Your task to perform on an android device: all mails in gmail Image 0: 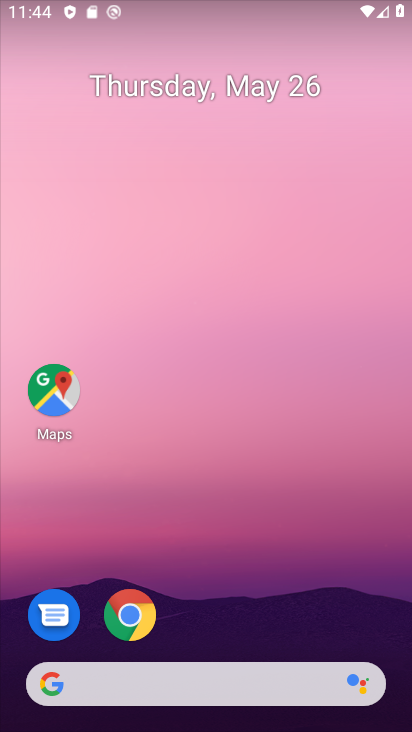
Step 0: drag from (185, 650) to (271, 182)
Your task to perform on an android device: all mails in gmail Image 1: 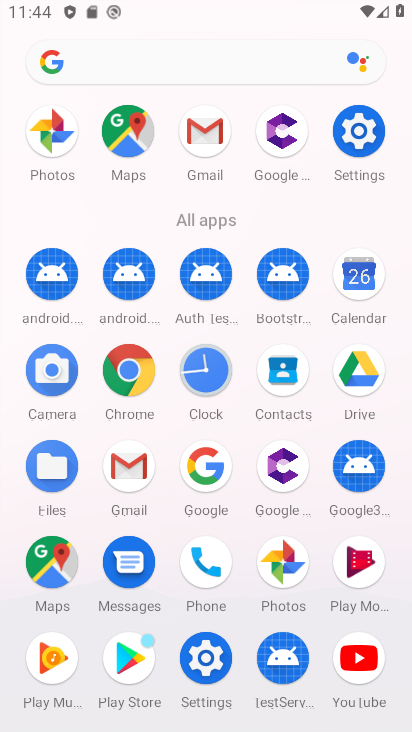
Step 1: click (123, 477)
Your task to perform on an android device: all mails in gmail Image 2: 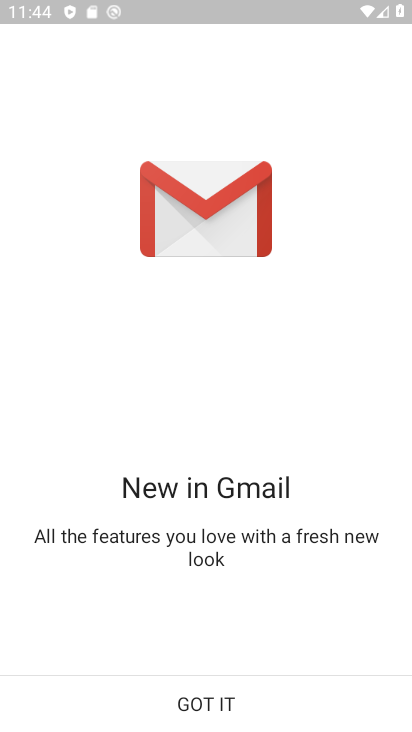
Step 2: click (237, 698)
Your task to perform on an android device: all mails in gmail Image 3: 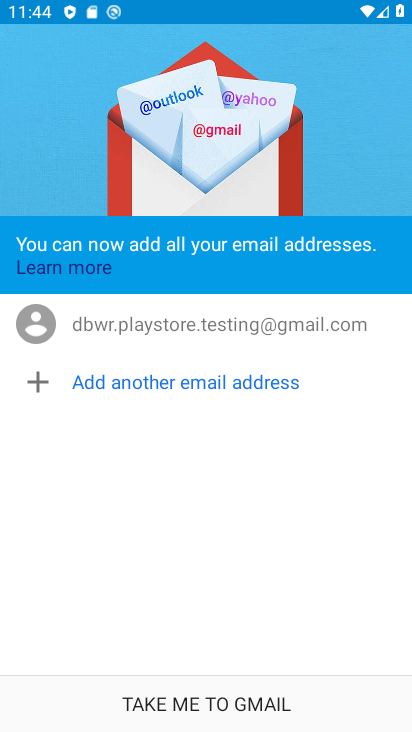
Step 3: click (237, 698)
Your task to perform on an android device: all mails in gmail Image 4: 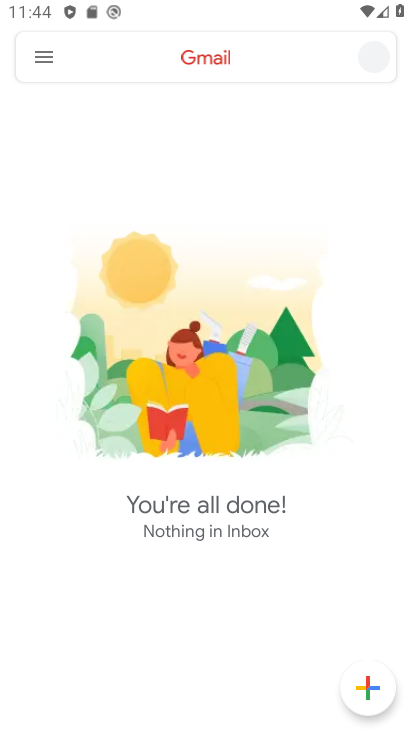
Step 4: click (31, 60)
Your task to perform on an android device: all mails in gmail Image 5: 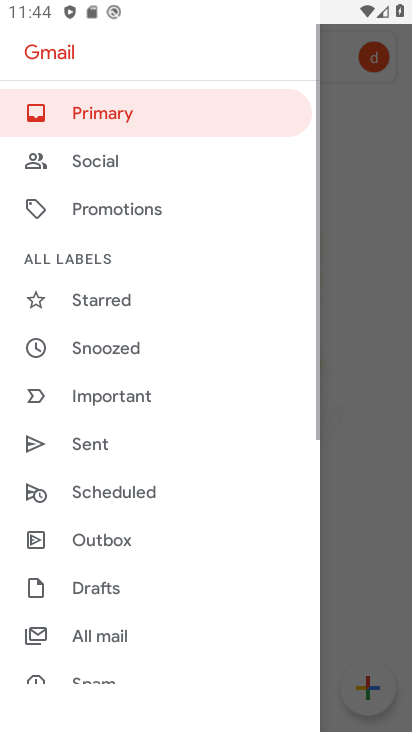
Step 5: drag from (165, 609) to (221, 294)
Your task to perform on an android device: all mails in gmail Image 6: 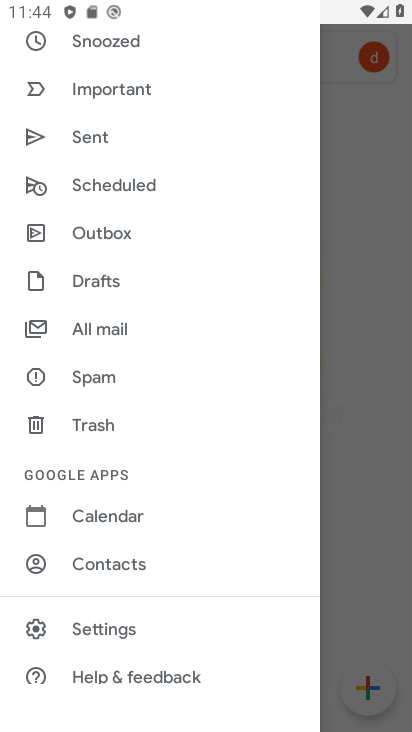
Step 6: click (144, 333)
Your task to perform on an android device: all mails in gmail Image 7: 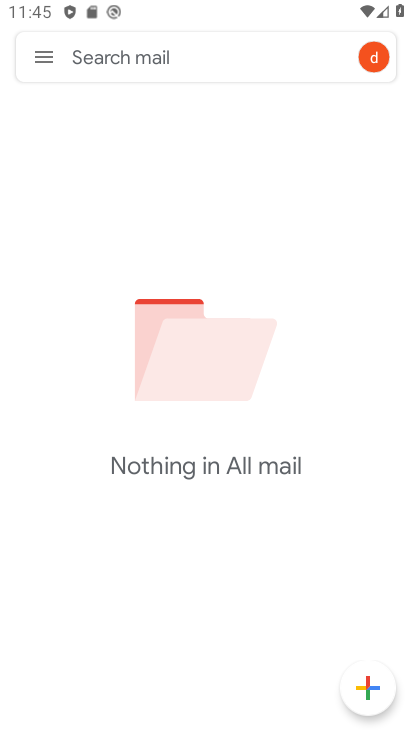
Step 7: task complete